Your task to perform on an android device: change timer sound Image 0: 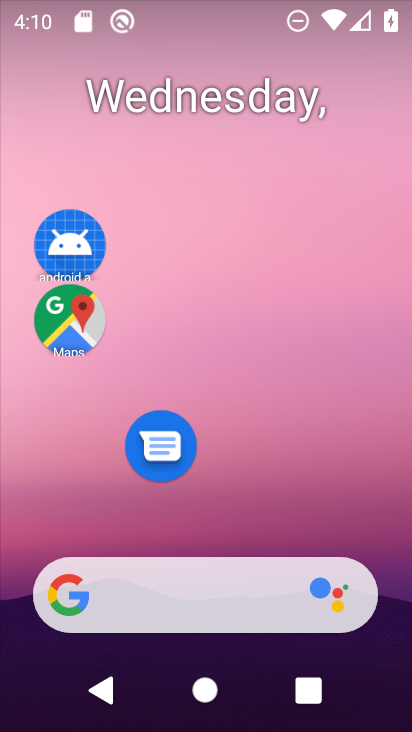
Step 0: drag from (298, 519) to (294, 168)
Your task to perform on an android device: change timer sound Image 1: 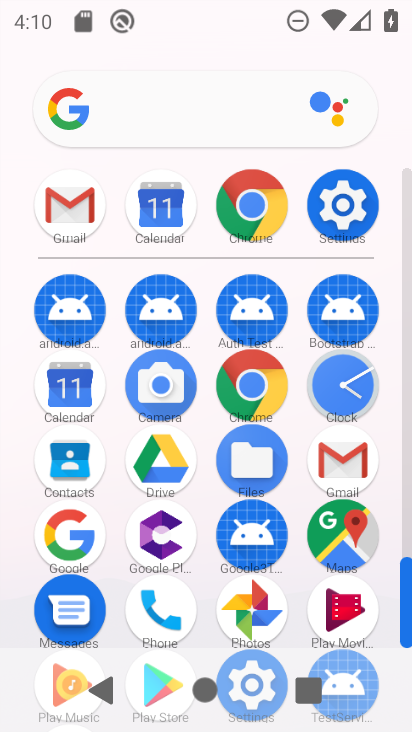
Step 1: click (346, 411)
Your task to perform on an android device: change timer sound Image 2: 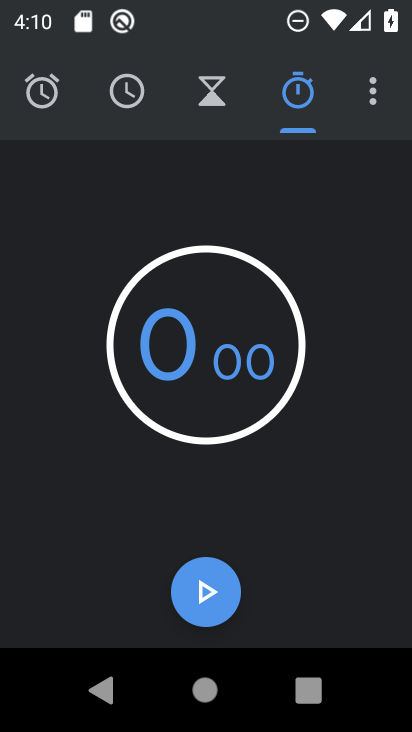
Step 2: click (365, 118)
Your task to perform on an android device: change timer sound Image 3: 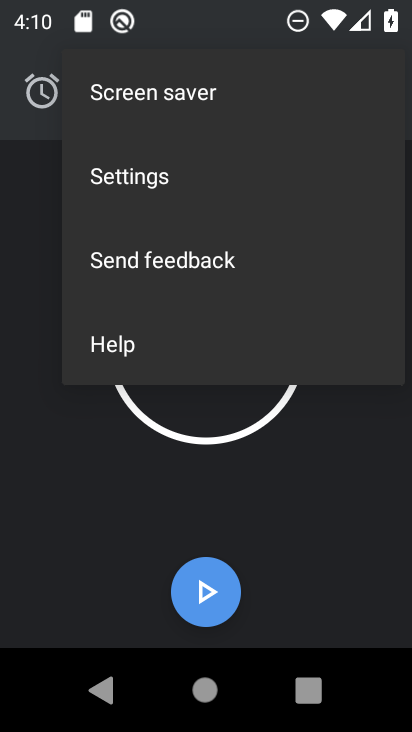
Step 3: click (289, 178)
Your task to perform on an android device: change timer sound Image 4: 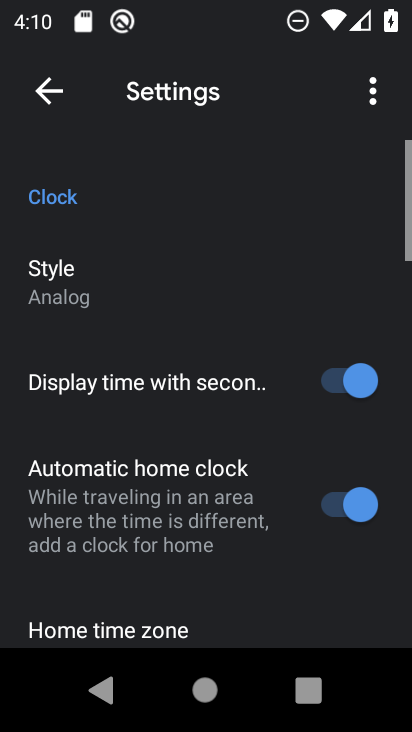
Step 4: drag from (226, 446) to (218, 174)
Your task to perform on an android device: change timer sound Image 5: 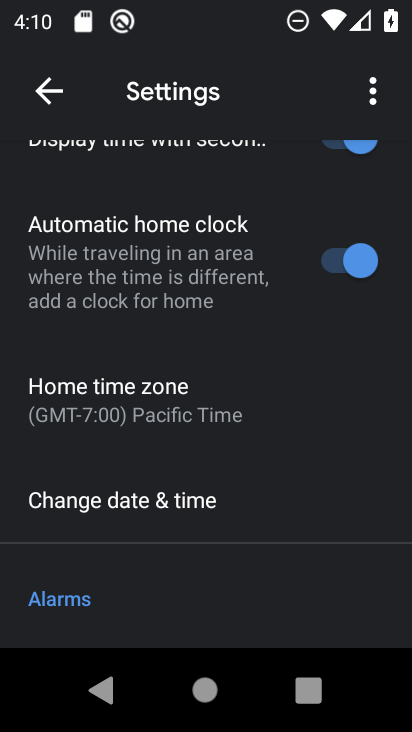
Step 5: drag from (242, 447) to (274, 159)
Your task to perform on an android device: change timer sound Image 6: 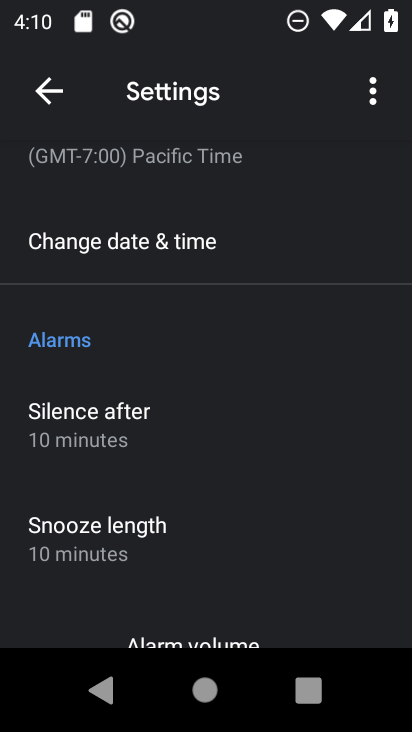
Step 6: drag from (260, 423) to (264, 218)
Your task to perform on an android device: change timer sound Image 7: 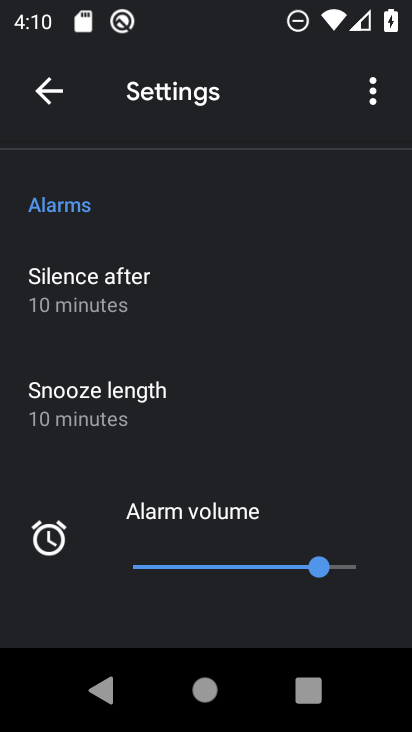
Step 7: drag from (223, 475) to (229, 189)
Your task to perform on an android device: change timer sound Image 8: 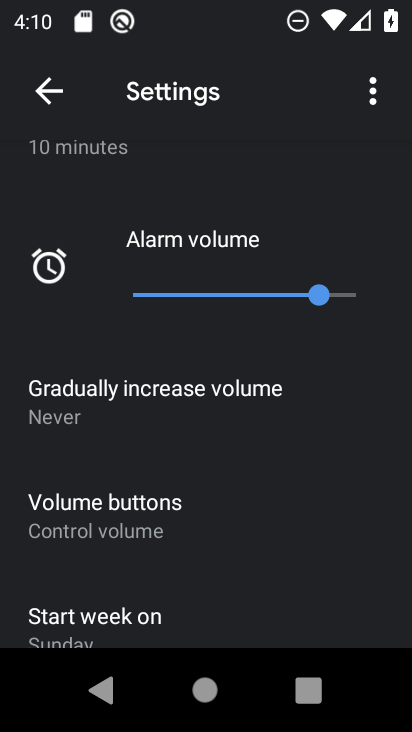
Step 8: drag from (292, 579) to (305, 216)
Your task to perform on an android device: change timer sound Image 9: 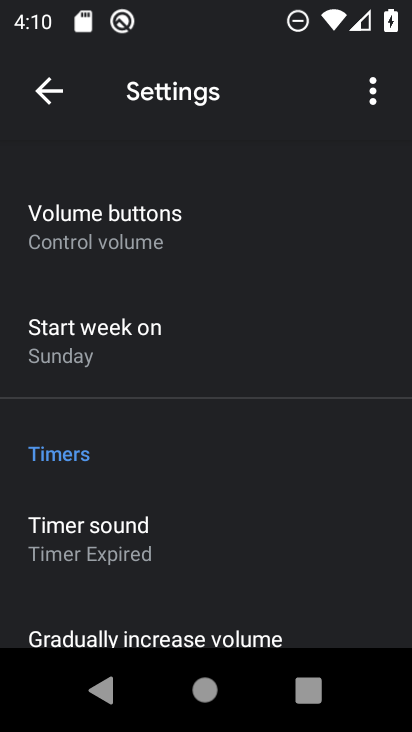
Step 9: click (215, 552)
Your task to perform on an android device: change timer sound Image 10: 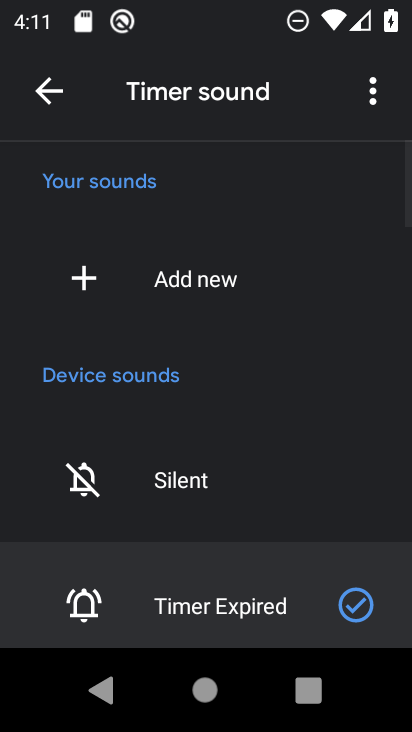
Step 10: click (133, 505)
Your task to perform on an android device: change timer sound Image 11: 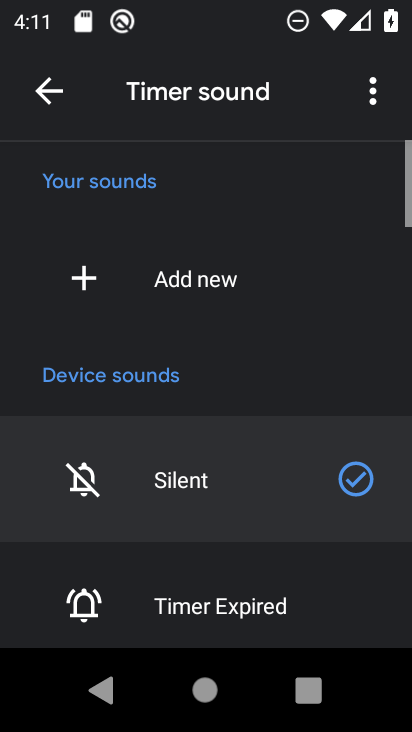
Step 11: task complete